Your task to perform on an android device: Go to Amazon Image 0: 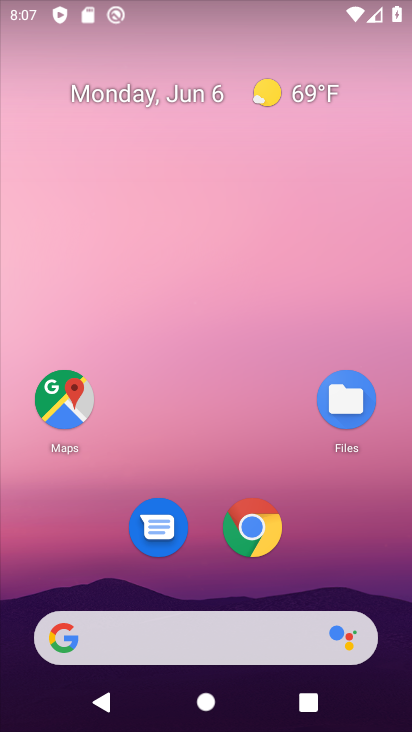
Step 0: click (251, 533)
Your task to perform on an android device: Go to Amazon Image 1: 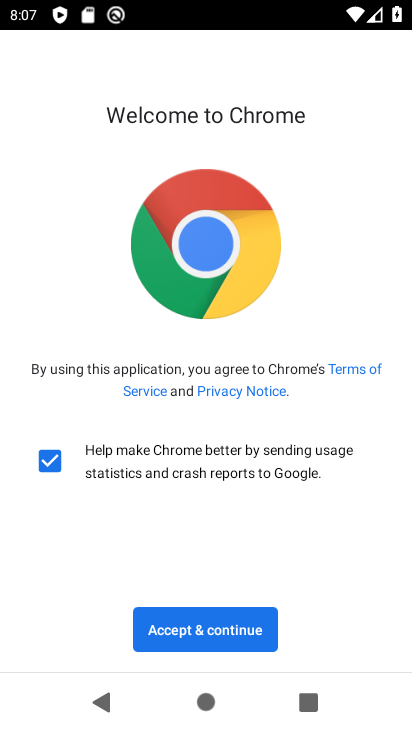
Step 1: click (214, 623)
Your task to perform on an android device: Go to Amazon Image 2: 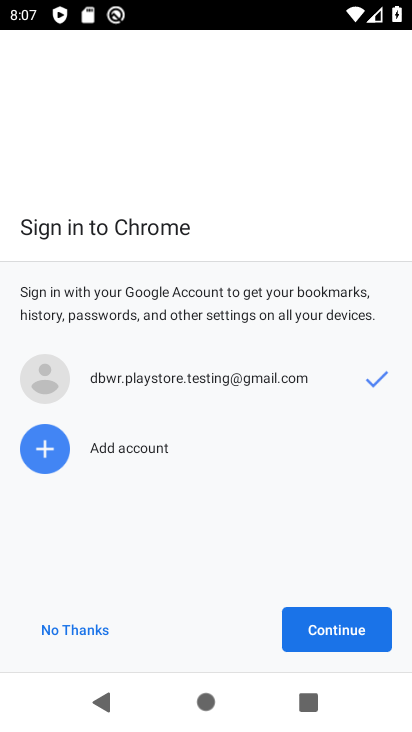
Step 2: click (291, 618)
Your task to perform on an android device: Go to Amazon Image 3: 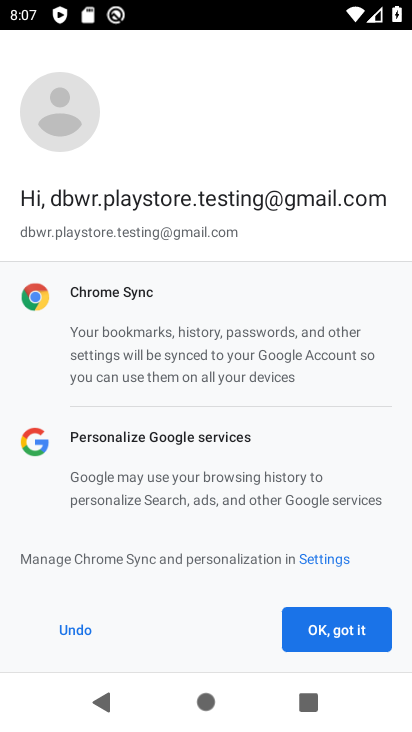
Step 3: click (291, 618)
Your task to perform on an android device: Go to Amazon Image 4: 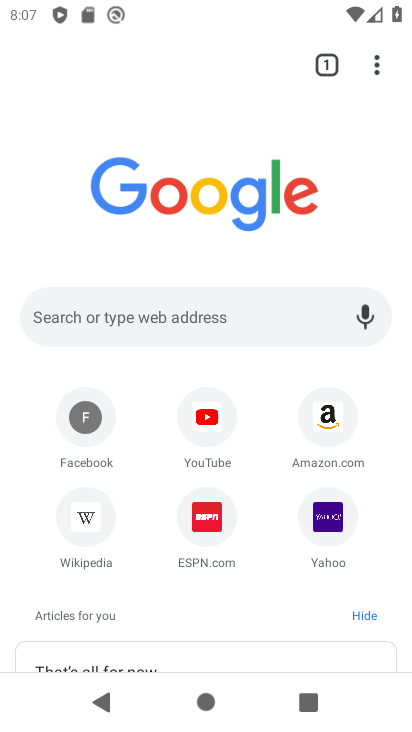
Step 4: click (335, 422)
Your task to perform on an android device: Go to Amazon Image 5: 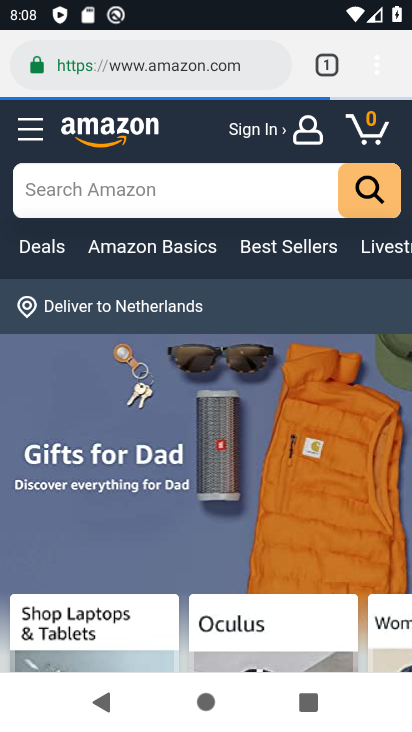
Step 5: task complete